Your task to perform on an android device: Search for sushi restaurants on Maps Image 0: 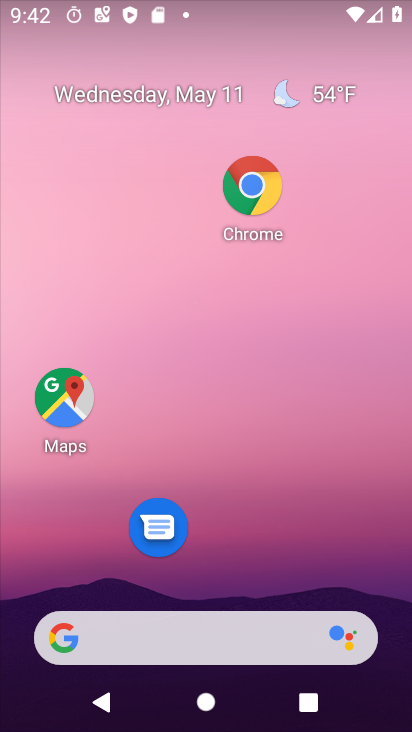
Step 0: click (65, 385)
Your task to perform on an android device: Search for sushi restaurants on Maps Image 1: 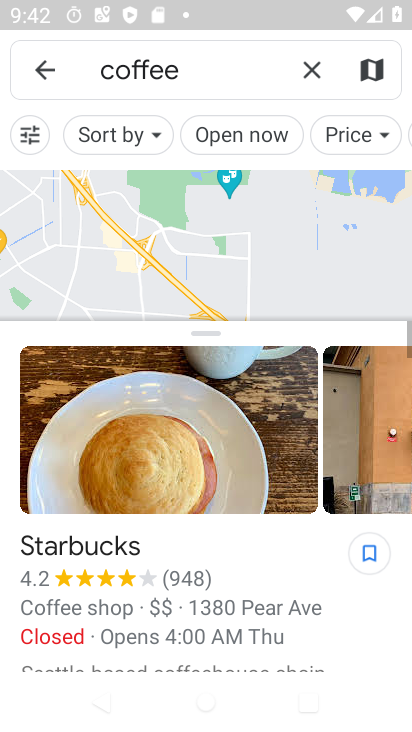
Step 1: click (288, 87)
Your task to perform on an android device: Search for sushi restaurants on Maps Image 2: 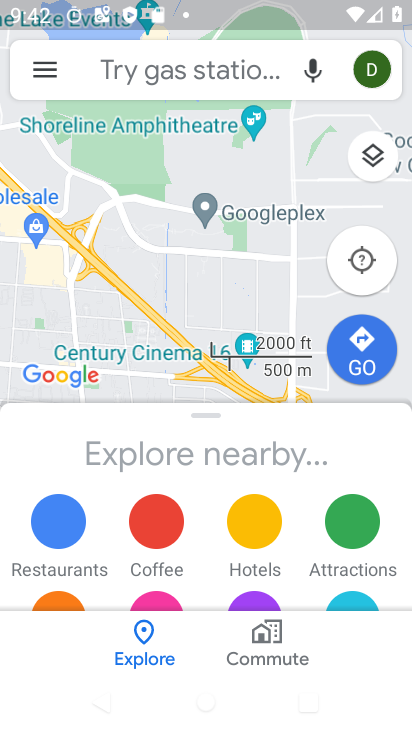
Step 2: click (185, 79)
Your task to perform on an android device: Search for sushi restaurants on Maps Image 3: 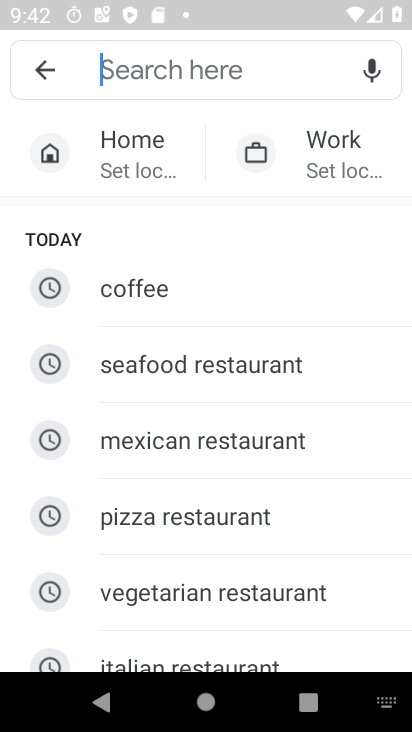
Step 3: drag from (227, 569) to (243, 296)
Your task to perform on an android device: Search for sushi restaurants on Maps Image 4: 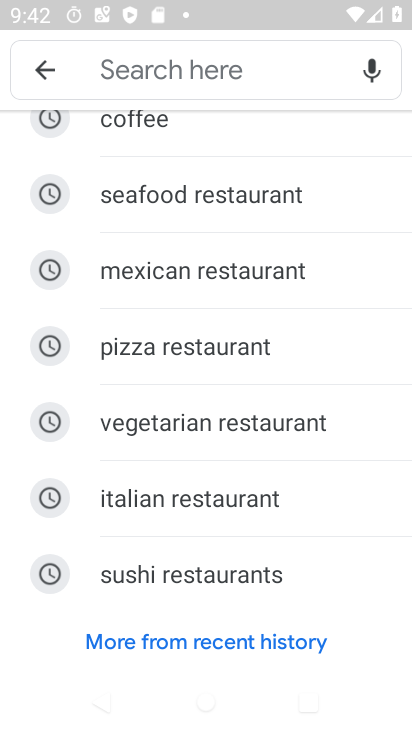
Step 4: click (165, 566)
Your task to perform on an android device: Search for sushi restaurants on Maps Image 5: 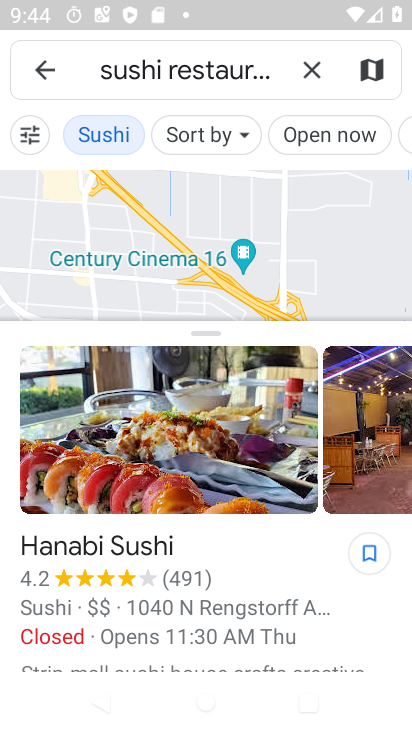
Step 5: task complete